Your task to perform on an android device: Clear the cart on costco. Search for bose soundlink mini on costco, select the first entry, add it to the cart, then select checkout. Image 0: 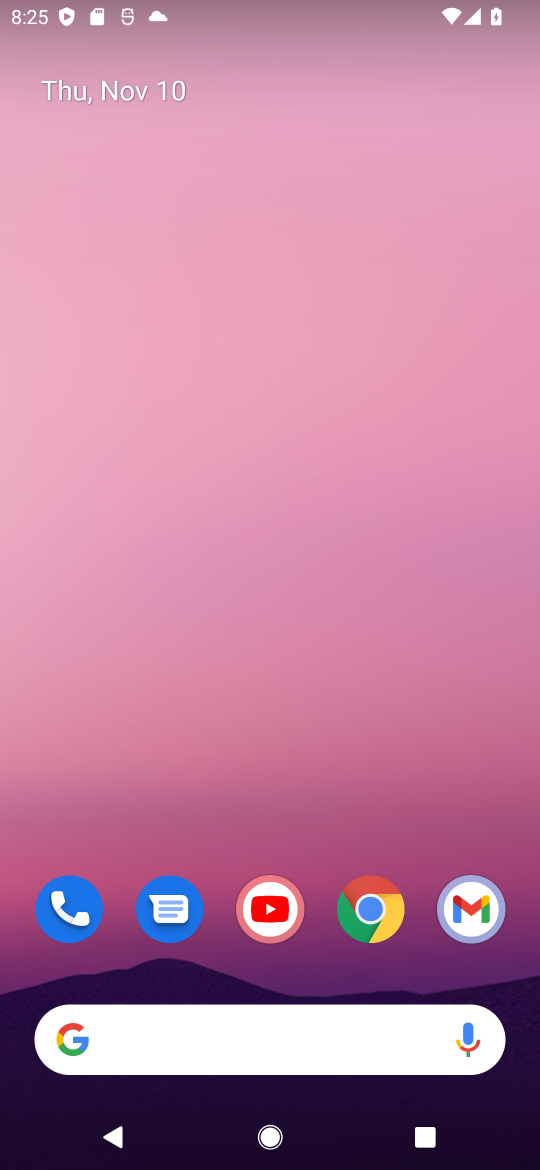
Step 0: press home button
Your task to perform on an android device: Clear the cart on costco. Search for bose soundlink mini on costco, select the first entry, add it to the cart, then select checkout. Image 1: 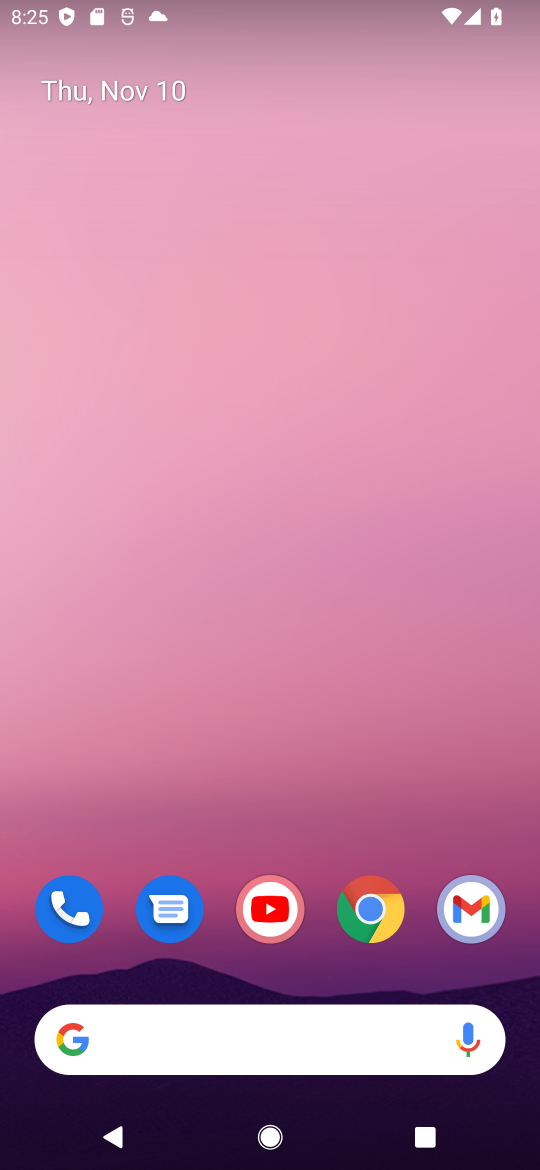
Step 1: drag from (253, 797) to (233, 96)
Your task to perform on an android device: Clear the cart on costco. Search for bose soundlink mini on costco, select the first entry, add it to the cart, then select checkout. Image 2: 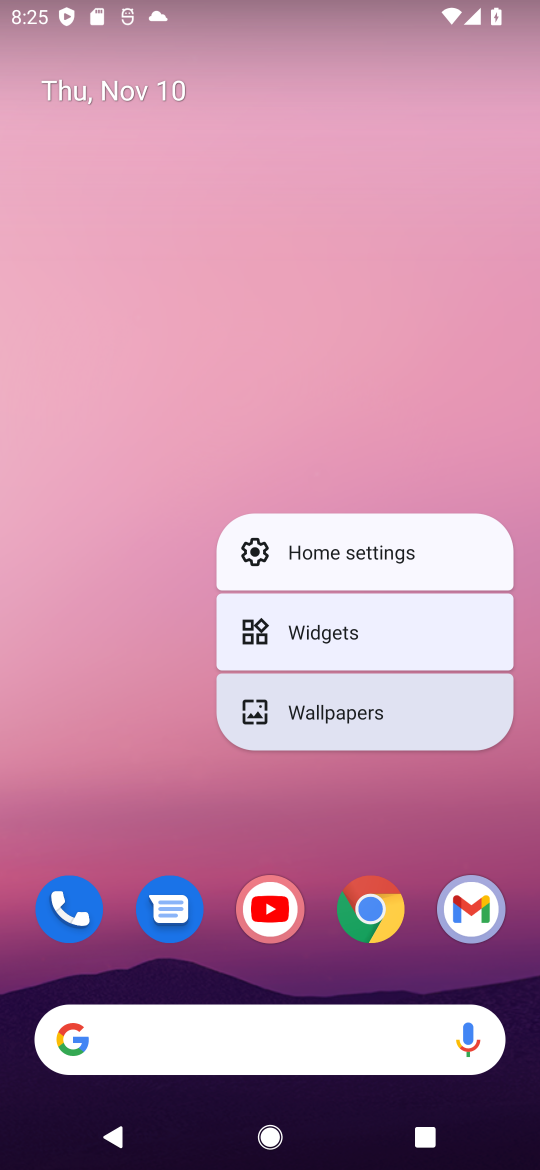
Step 2: drag from (256, 1040) to (204, 284)
Your task to perform on an android device: Clear the cart on costco. Search for bose soundlink mini on costco, select the first entry, add it to the cart, then select checkout. Image 3: 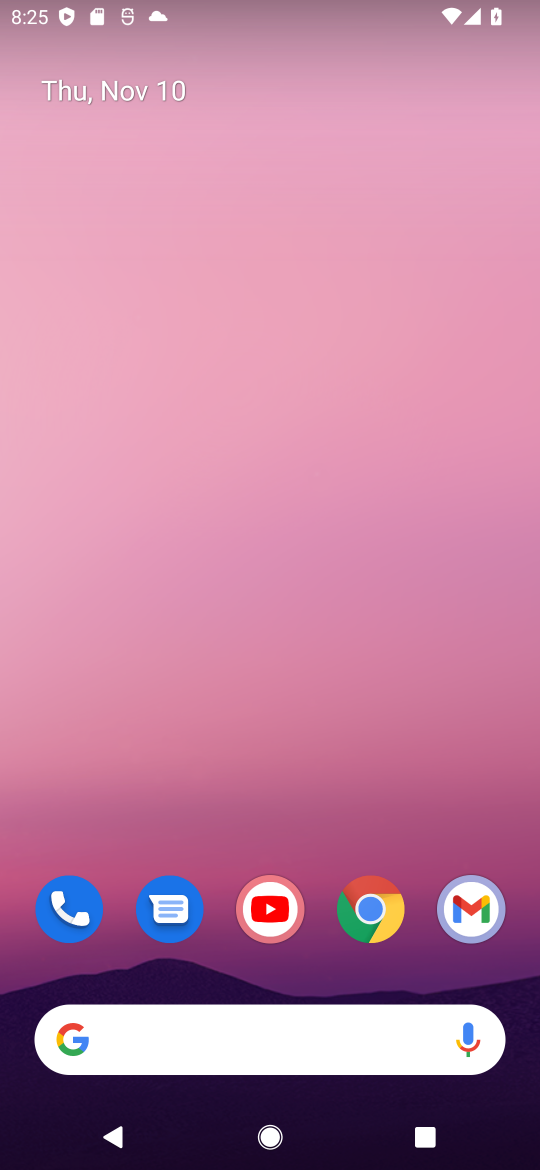
Step 3: drag from (177, 944) to (269, 446)
Your task to perform on an android device: Clear the cart on costco. Search for bose soundlink mini on costco, select the first entry, add it to the cart, then select checkout. Image 4: 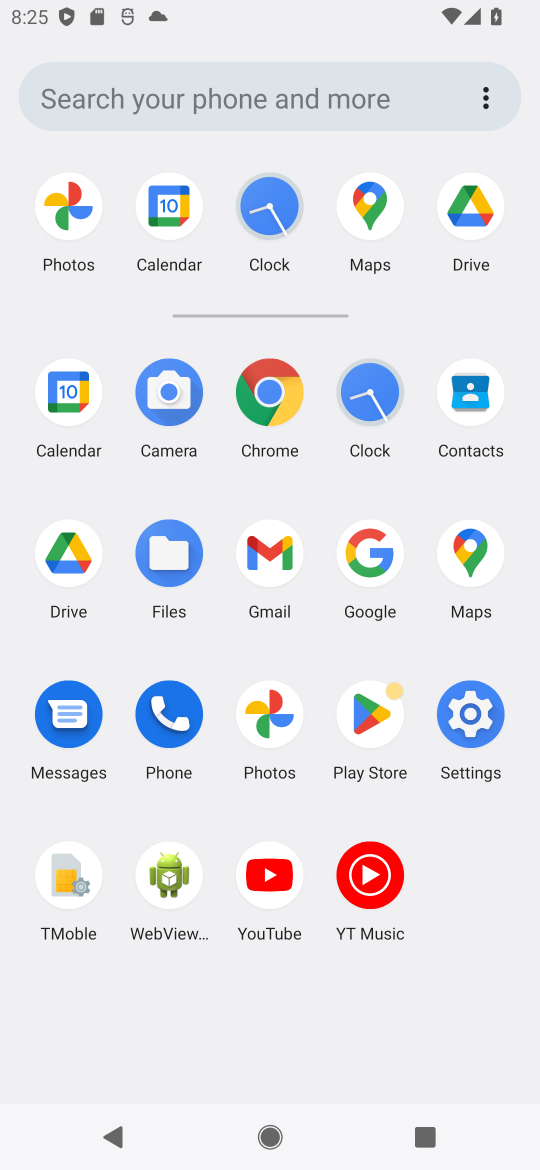
Step 4: click (376, 649)
Your task to perform on an android device: Clear the cart on costco. Search for bose soundlink mini on costco, select the first entry, add it to the cart, then select checkout. Image 5: 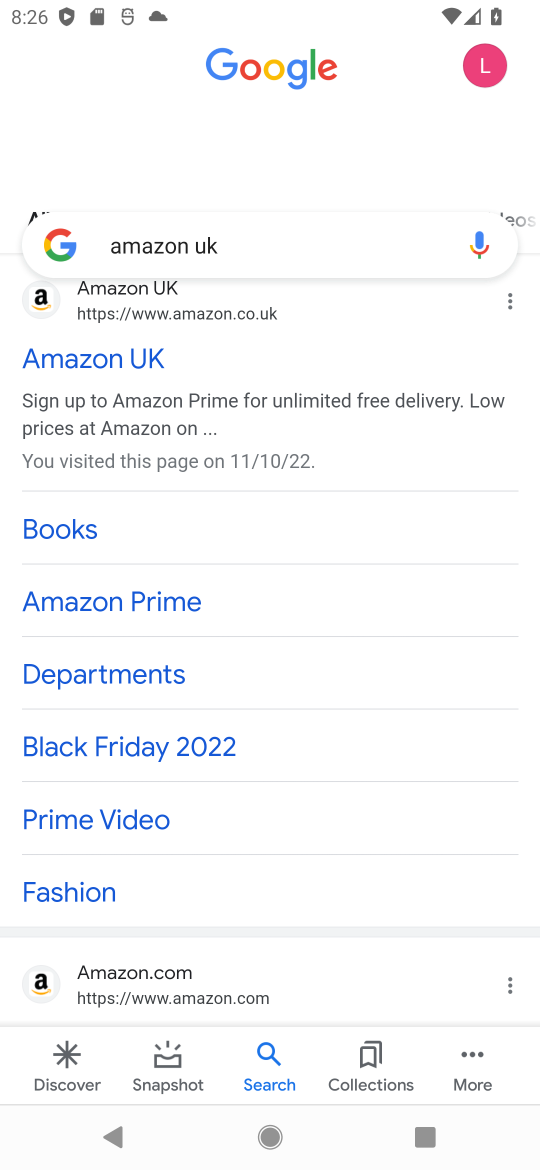
Step 5: click (162, 215)
Your task to perform on an android device: Clear the cart on costco. Search for bose soundlink mini on costco, select the first entry, add it to the cart, then select checkout. Image 6: 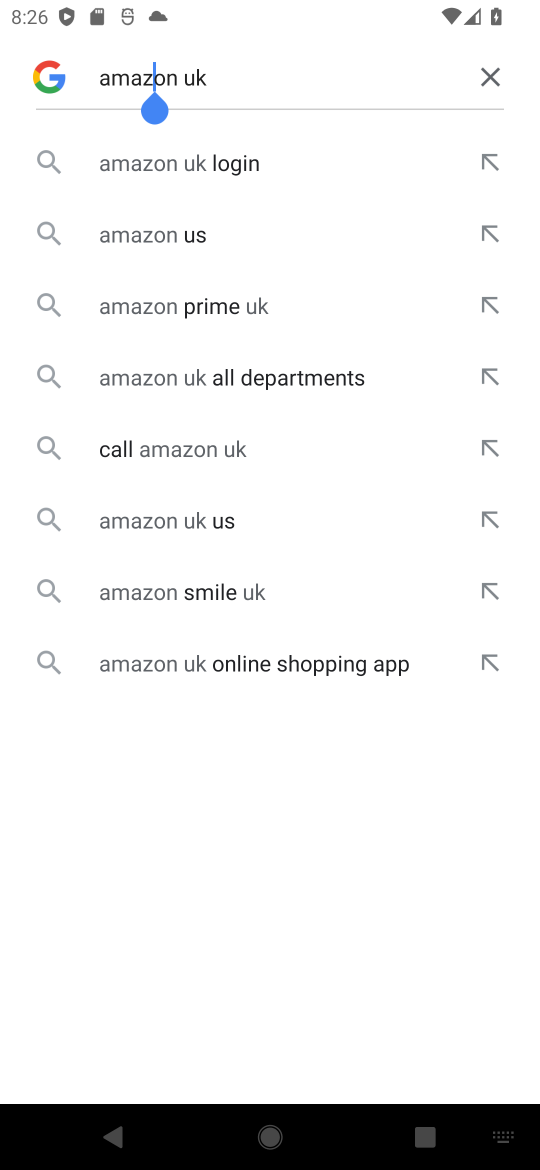
Step 6: click (310, 237)
Your task to perform on an android device: Clear the cart on costco. Search for bose soundlink mini on costco, select the first entry, add it to the cart, then select checkout. Image 7: 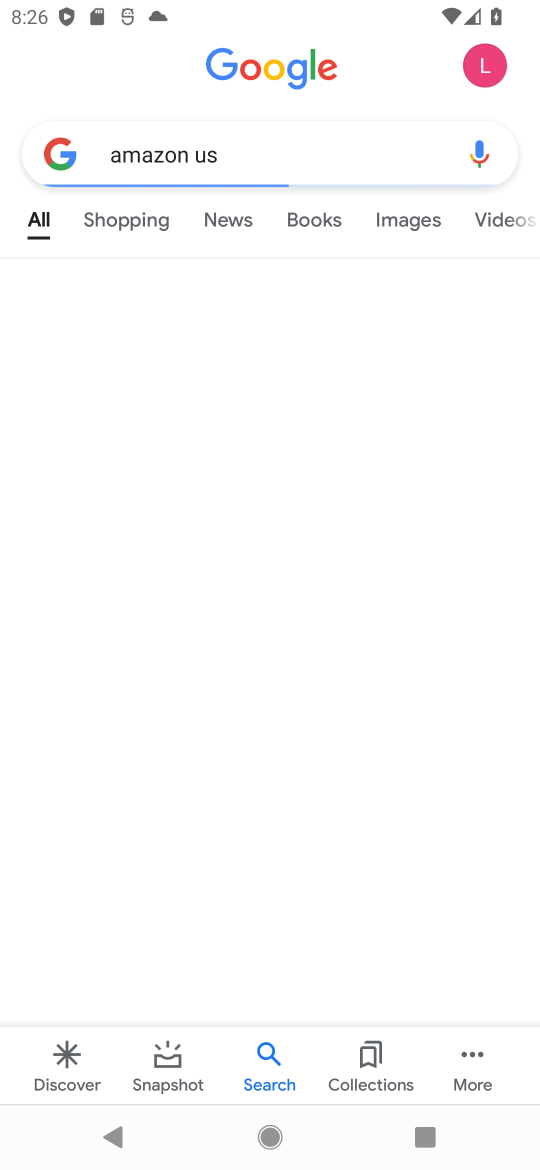
Step 7: click (478, 77)
Your task to perform on an android device: Clear the cart on costco. Search for bose soundlink mini on costco, select the first entry, add it to the cart, then select checkout. Image 8: 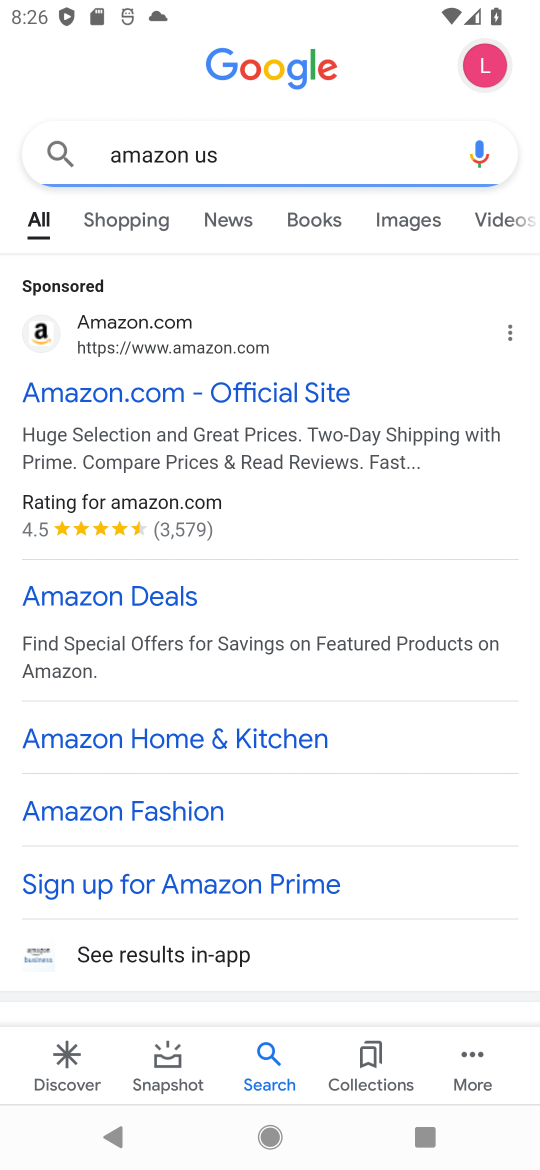
Step 8: click (298, 147)
Your task to perform on an android device: Clear the cart on costco. Search for bose soundlink mini on costco, select the first entry, add it to the cart, then select checkout. Image 9: 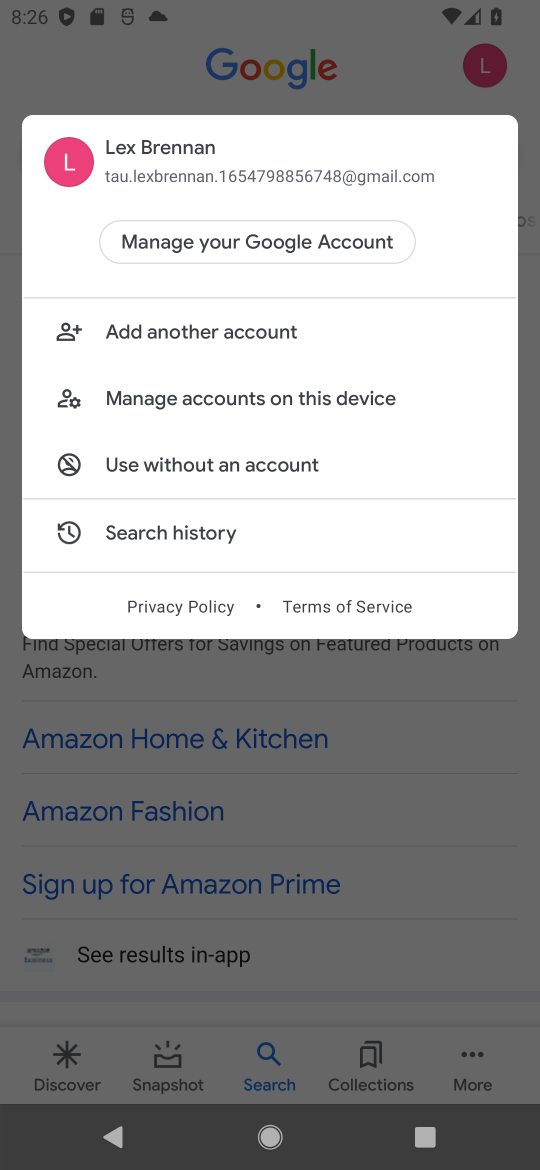
Step 9: click (292, 75)
Your task to perform on an android device: Clear the cart on costco. Search for bose soundlink mini on costco, select the first entry, add it to the cart, then select checkout. Image 10: 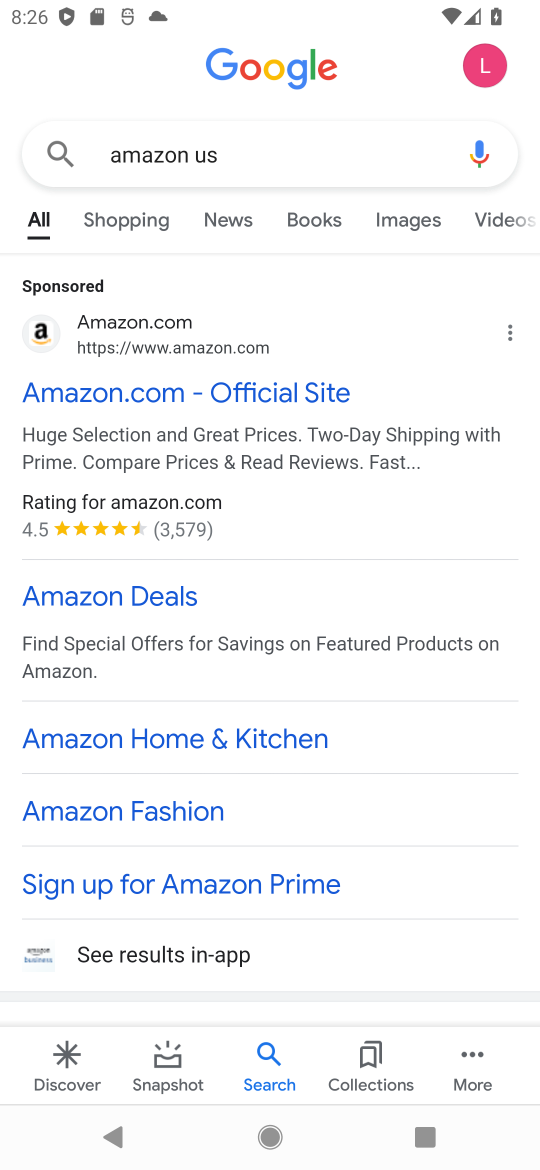
Step 10: click (218, 154)
Your task to perform on an android device: Clear the cart on costco. Search for bose soundlink mini on costco, select the first entry, add it to the cart, then select checkout. Image 11: 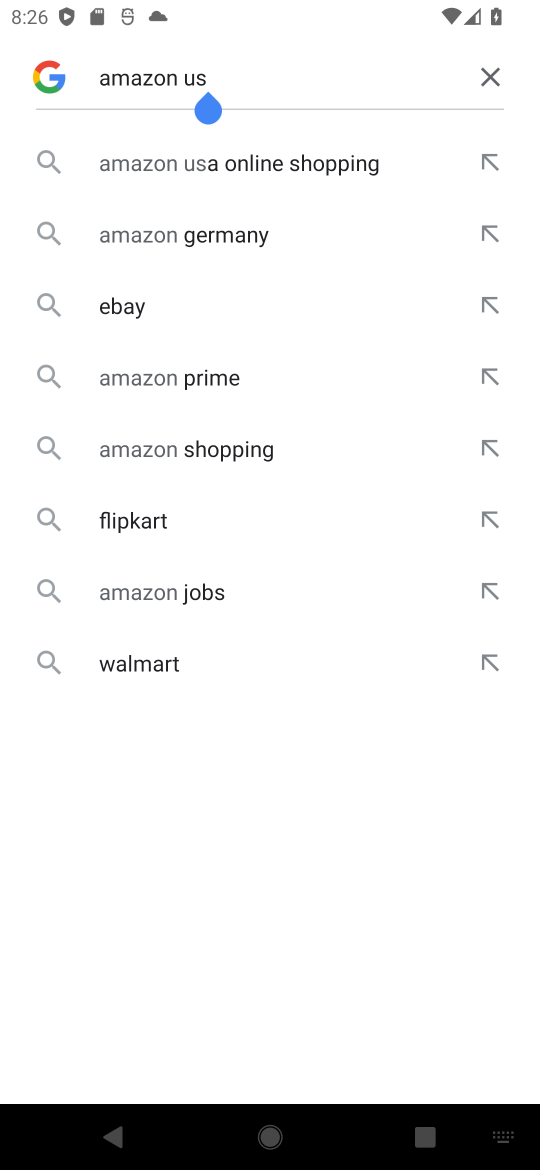
Step 11: click (491, 81)
Your task to perform on an android device: Clear the cart on costco. Search for bose soundlink mini on costco, select the first entry, add it to the cart, then select checkout. Image 12: 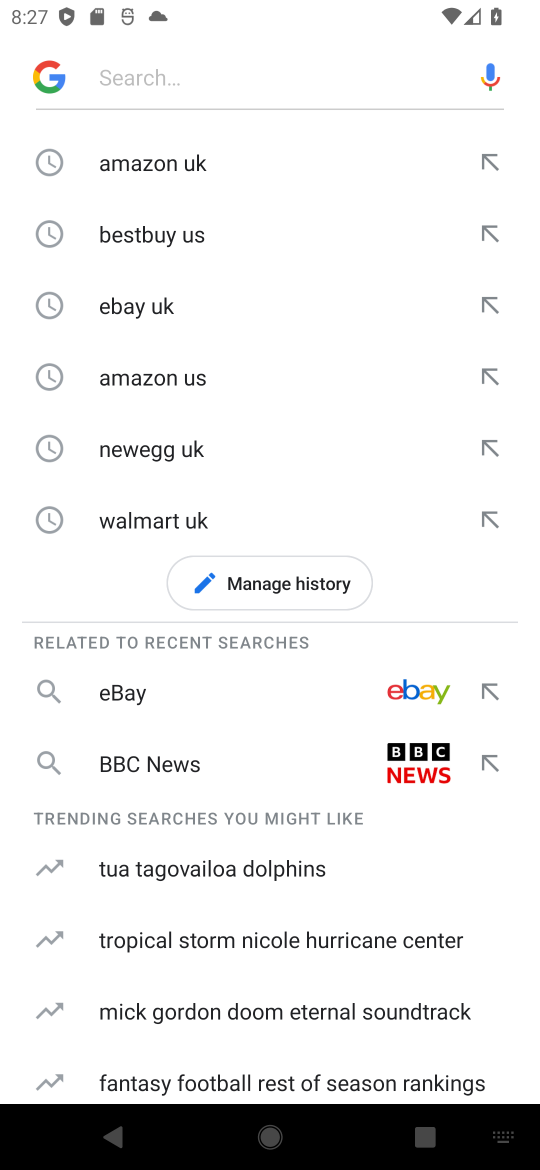
Step 12: click (321, 71)
Your task to perform on an android device: Clear the cart on costco. Search for bose soundlink mini on costco, select the first entry, add it to the cart, then select checkout. Image 13: 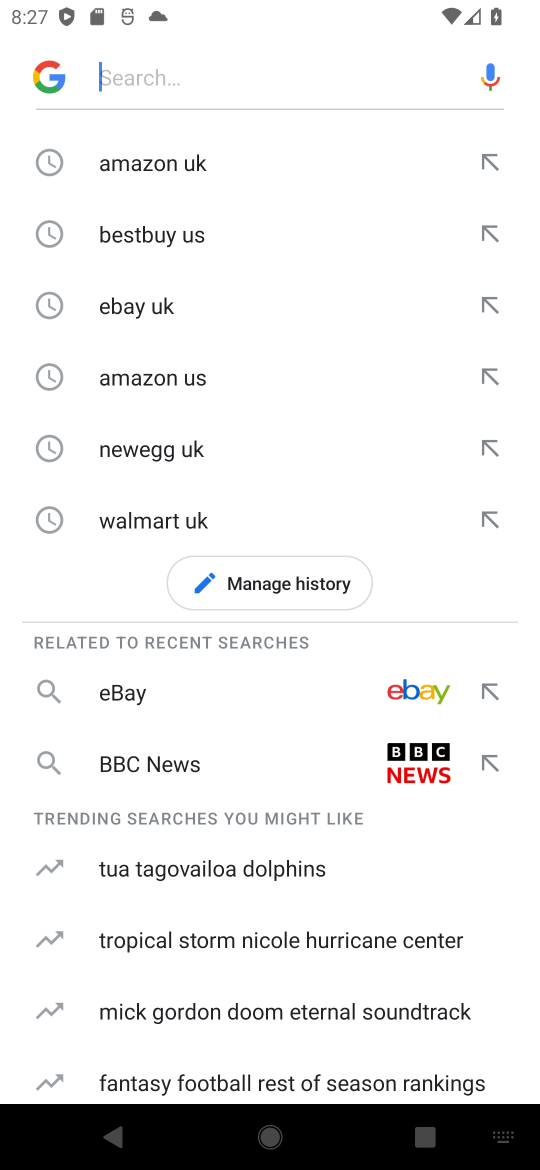
Step 13: type "costco "
Your task to perform on an android device: Clear the cart on costco. Search for bose soundlink mini on costco, select the first entry, add it to the cart, then select checkout. Image 14: 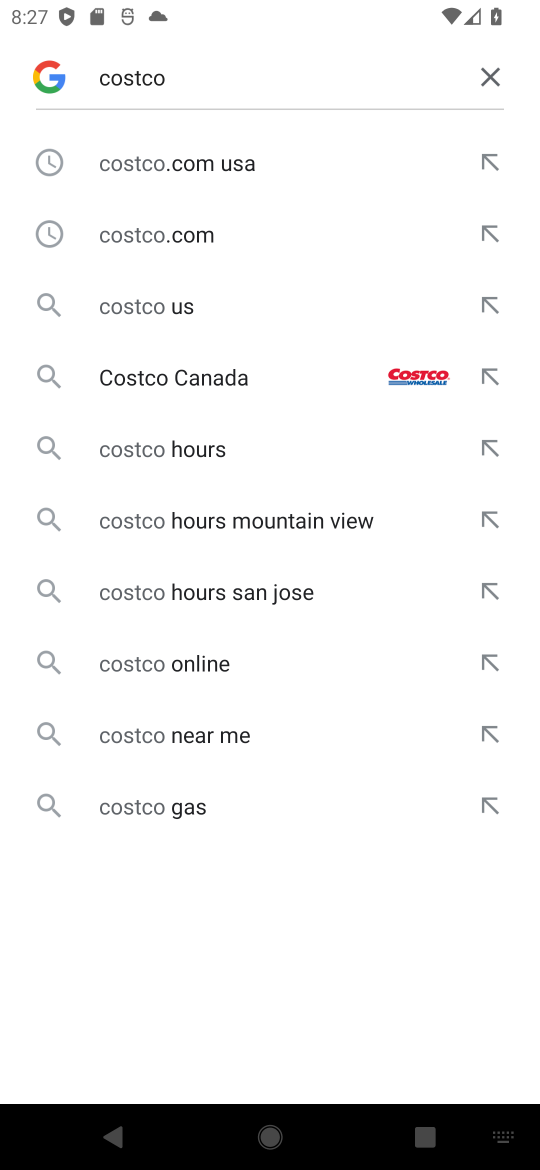
Step 14: click (200, 153)
Your task to perform on an android device: Clear the cart on costco. Search for bose soundlink mini on costco, select the first entry, add it to the cart, then select checkout. Image 15: 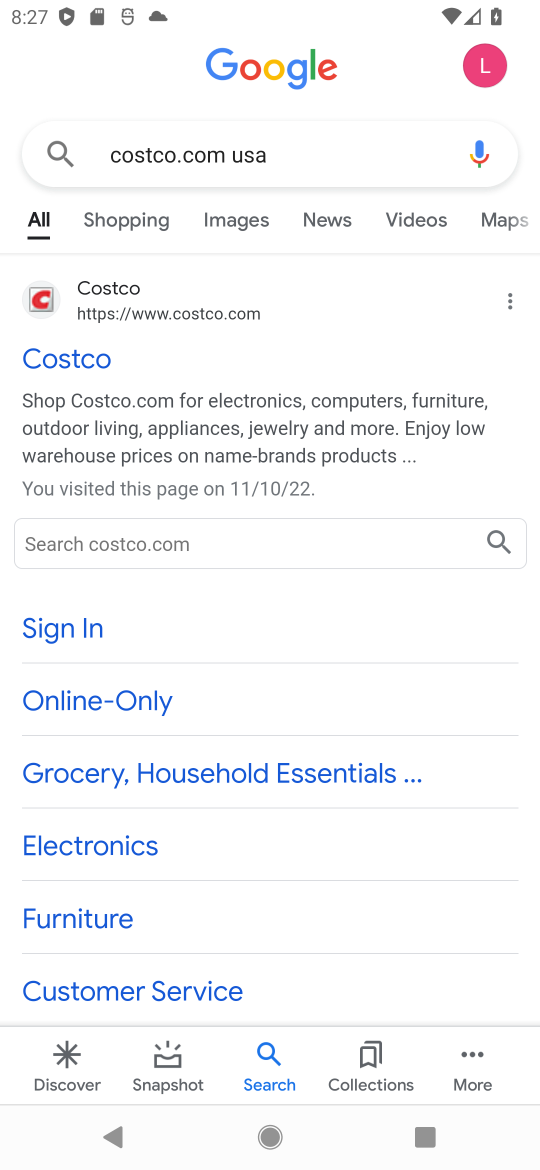
Step 15: click (29, 285)
Your task to perform on an android device: Clear the cart on costco. Search for bose soundlink mini on costco, select the first entry, add it to the cart, then select checkout. Image 16: 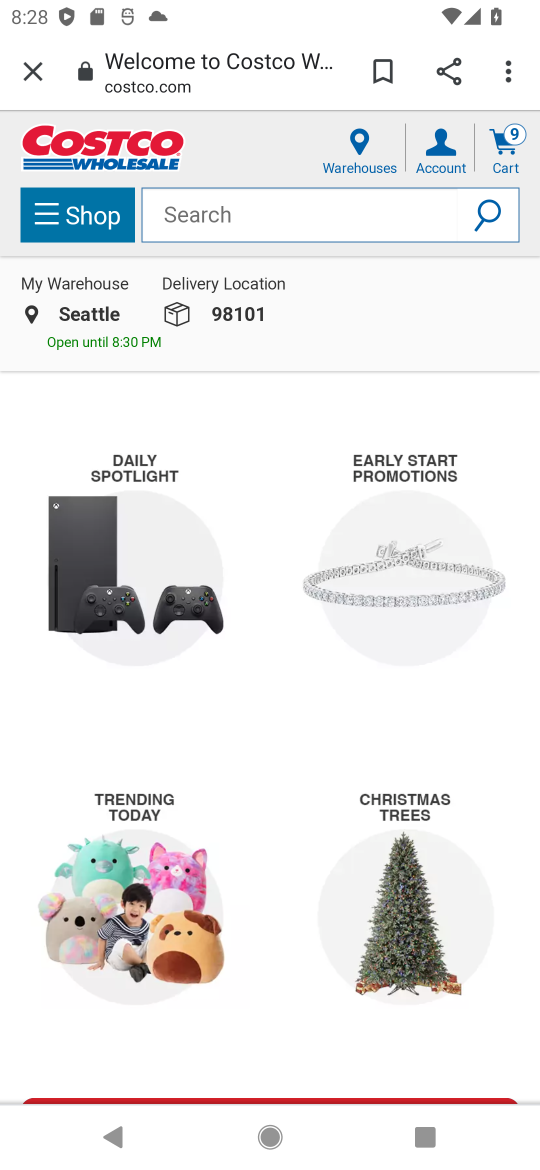
Step 16: click (275, 188)
Your task to perform on an android device: Clear the cart on costco. Search for bose soundlink mini on costco, select the first entry, add it to the cart, then select checkout. Image 17: 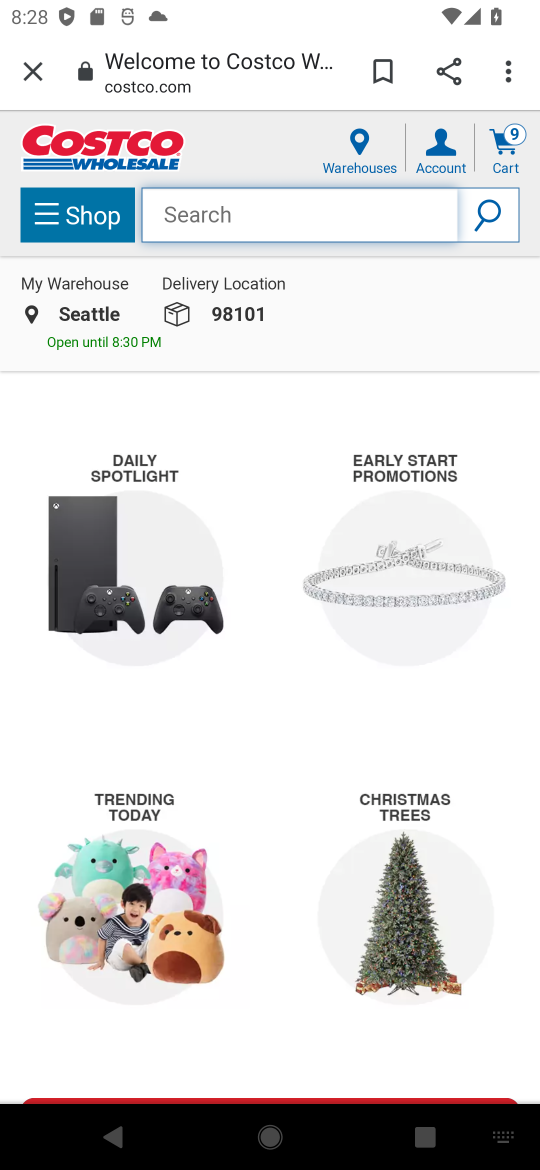
Step 17: type "bose soundlink "
Your task to perform on an android device: Clear the cart on costco. Search for bose soundlink mini on costco, select the first entry, add it to the cart, then select checkout. Image 18: 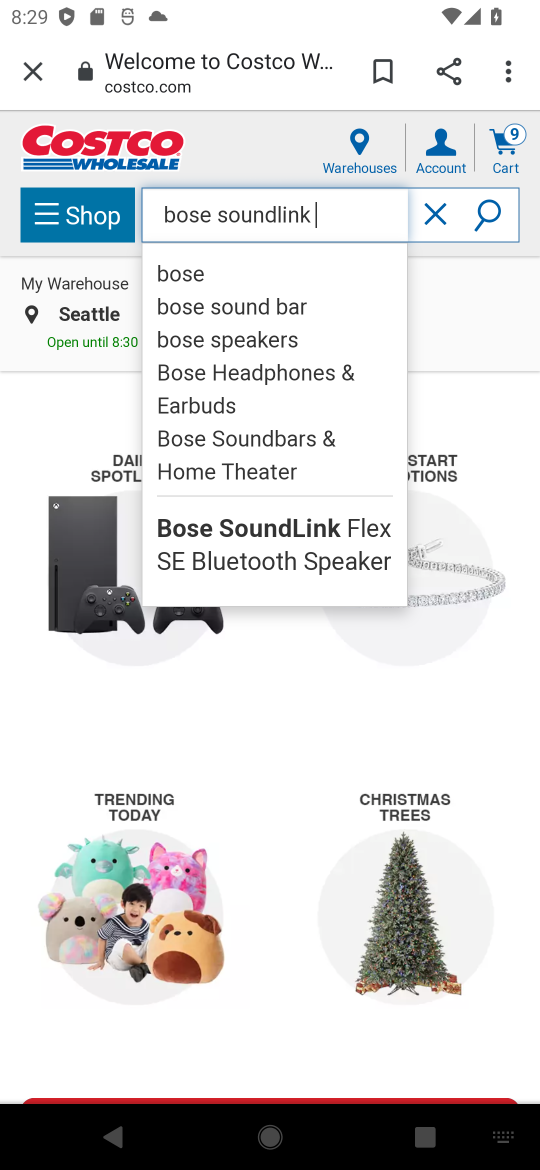
Step 18: click (486, 198)
Your task to perform on an android device: Clear the cart on costco. Search for bose soundlink mini on costco, select the first entry, add it to the cart, then select checkout. Image 19: 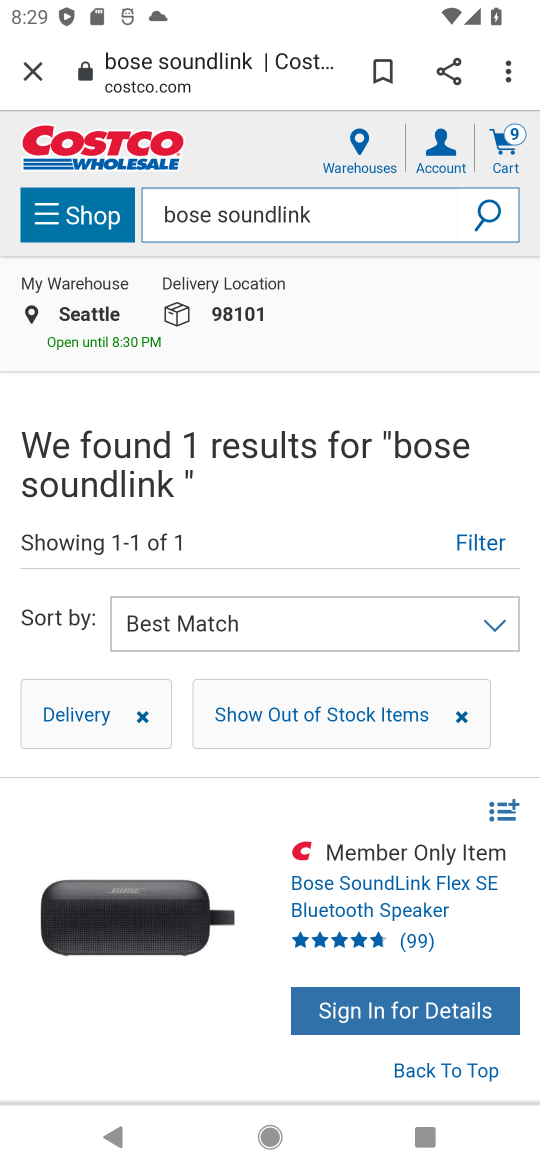
Step 19: click (364, 868)
Your task to perform on an android device: Clear the cart on costco. Search for bose soundlink mini on costco, select the first entry, add it to the cart, then select checkout. Image 20: 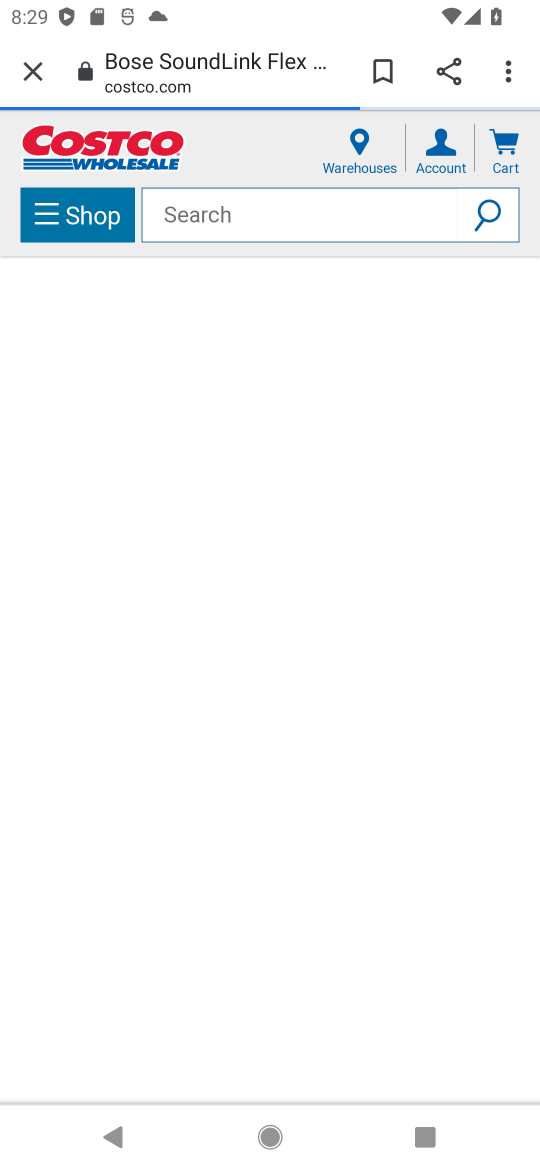
Step 20: drag from (294, 699) to (316, 285)
Your task to perform on an android device: Clear the cart on costco. Search for bose soundlink mini on costco, select the first entry, add it to the cart, then select checkout. Image 21: 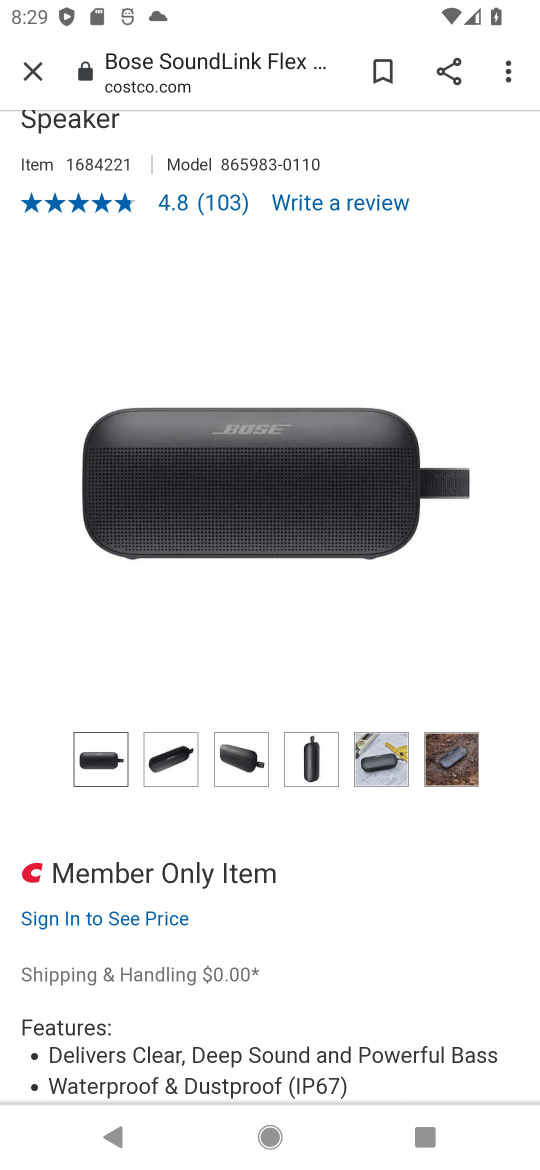
Step 21: drag from (307, 764) to (300, 294)
Your task to perform on an android device: Clear the cart on costco. Search for bose soundlink mini on costco, select the first entry, add it to the cart, then select checkout. Image 22: 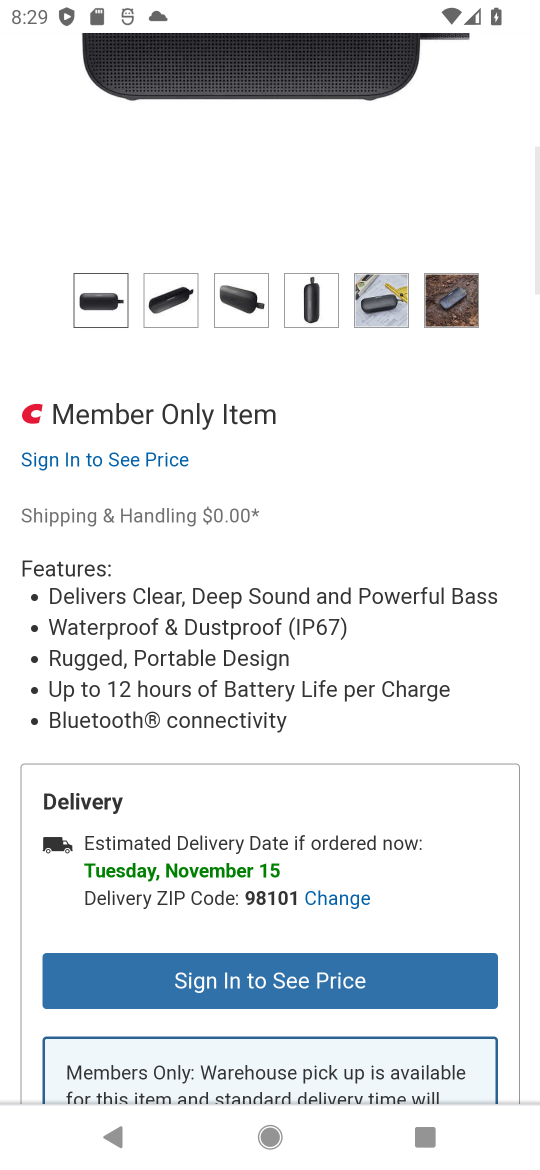
Step 22: drag from (335, 957) to (306, 290)
Your task to perform on an android device: Clear the cart on costco. Search for bose soundlink mini on costco, select the first entry, add it to the cart, then select checkout. Image 23: 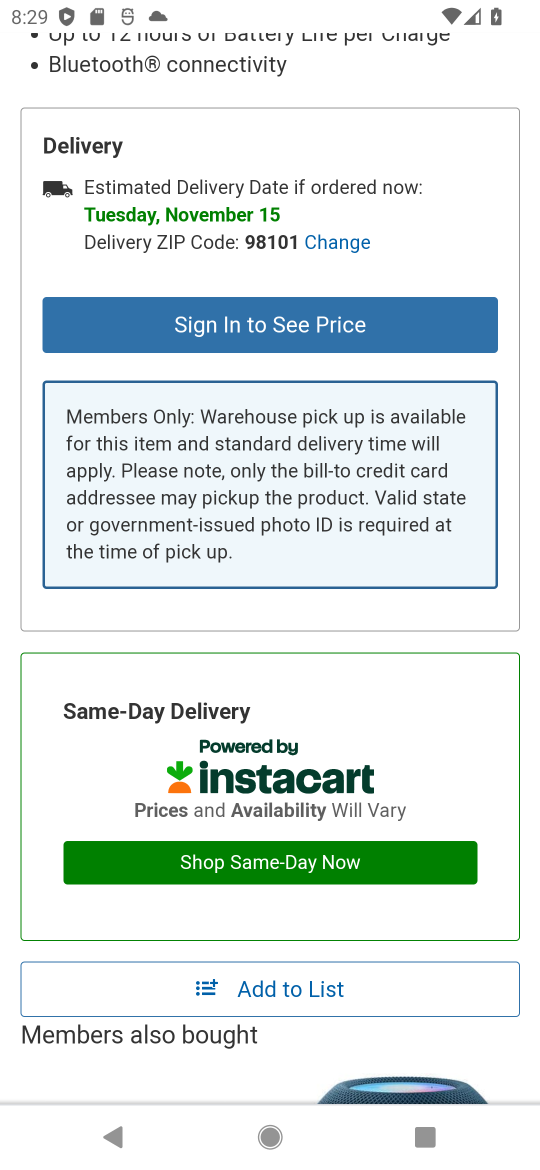
Step 23: drag from (373, 904) to (311, 444)
Your task to perform on an android device: Clear the cart on costco. Search for bose soundlink mini on costco, select the first entry, add it to the cart, then select checkout. Image 24: 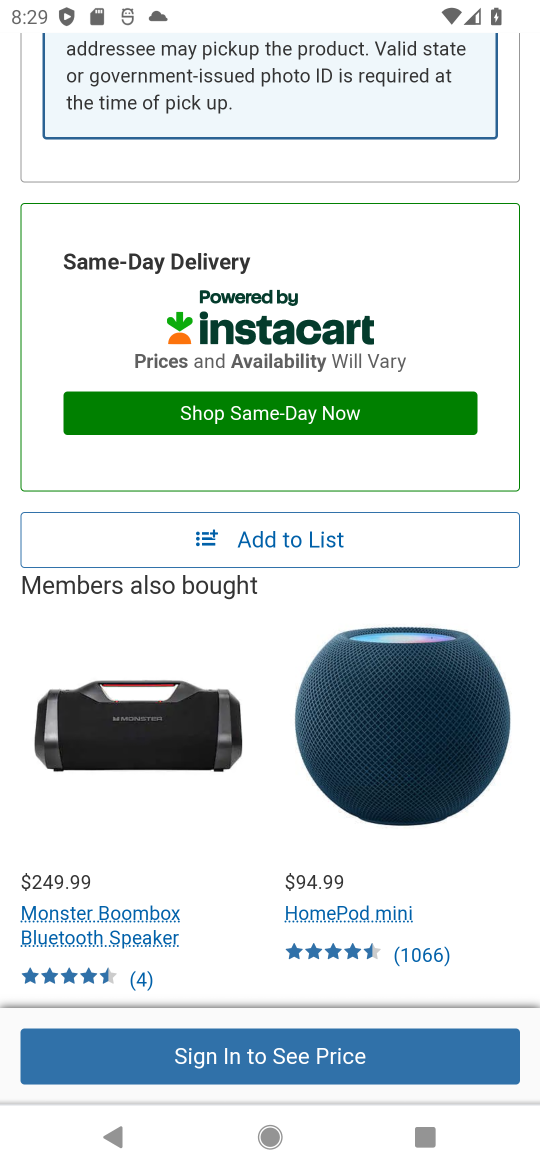
Step 24: drag from (266, 996) to (266, 725)
Your task to perform on an android device: Clear the cart on costco. Search for bose soundlink mini on costco, select the first entry, add it to the cart, then select checkout. Image 25: 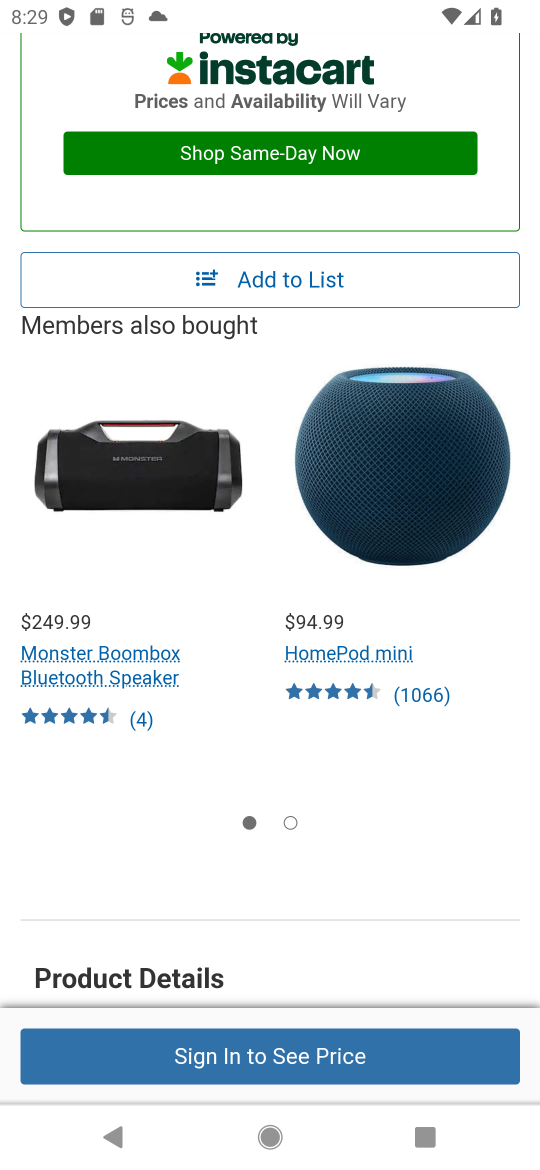
Step 25: click (390, 483)
Your task to perform on an android device: Clear the cart on costco. Search for bose soundlink mini on costco, select the first entry, add it to the cart, then select checkout. Image 26: 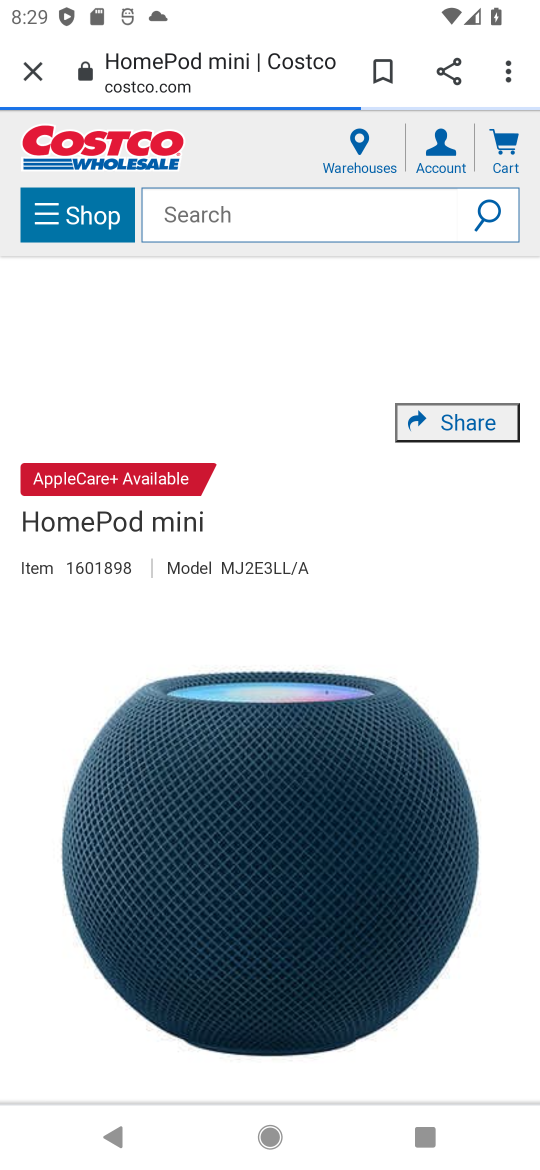
Step 26: drag from (344, 965) to (358, 289)
Your task to perform on an android device: Clear the cart on costco. Search for bose soundlink mini on costco, select the first entry, add it to the cart, then select checkout. Image 27: 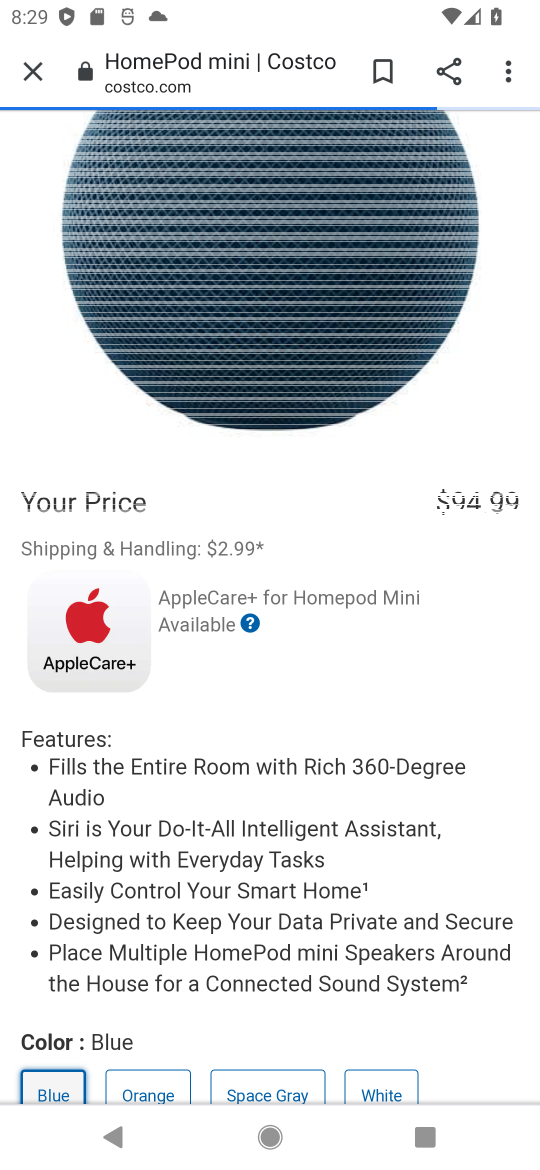
Step 27: drag from (296, 858) to (290, 253)
Your task to perform on an android device: Clear the cart on costco. Search for bose soundlink mini on costco, select the first entry, add it to the cart, then select checkout. Image 28: 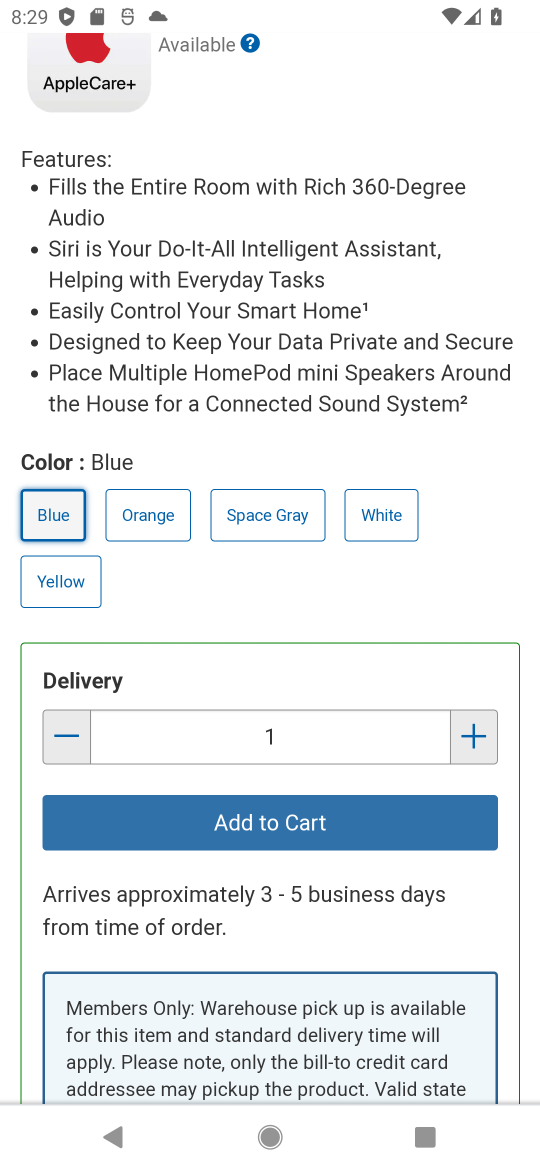
Step 28: click (299, 821)
Your task to perform on an android device: Clear the cart on costco. Search for bose soundlink mini on costco, select the first entry, add it to the cart, then select checkout. Image 29: 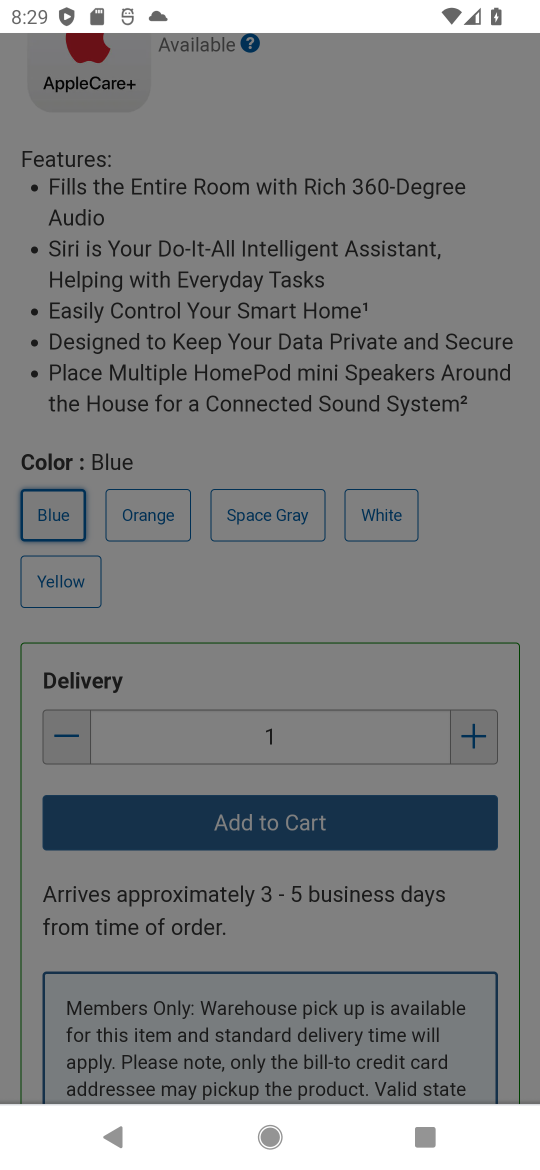
Step 29: task complete